Your task to perform on an android device: Open network settings Image 0: 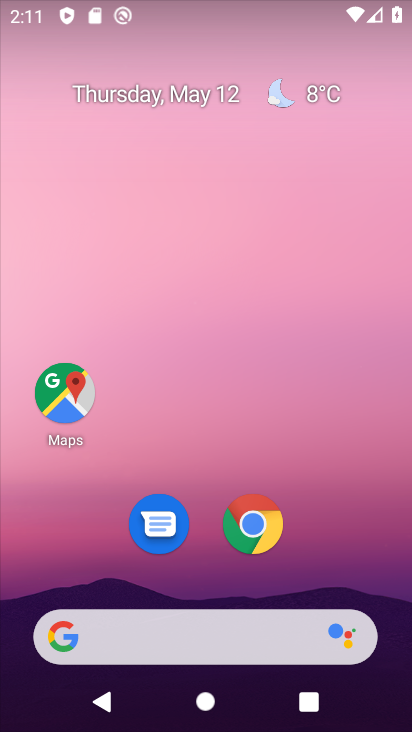
Step 0: drag from (296, 462) to (278, 62)
Your task to perform on an android device: Open network settings Image 1: 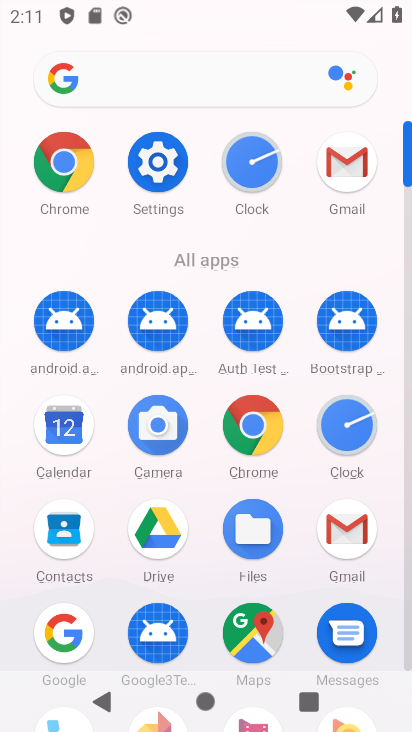
Step 1: click (161, 169)
Your task to perform on an android device: Open network settings Image 2: 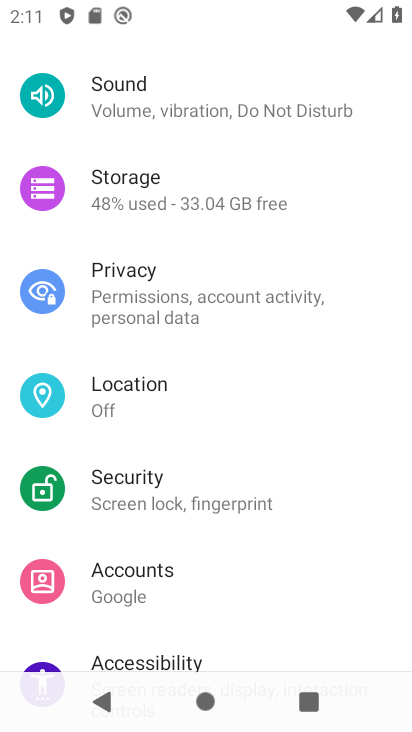
Step 2: drag from (236, 165) to (228, 576)
Your task to perform on an android device: Open network settings Image 3: 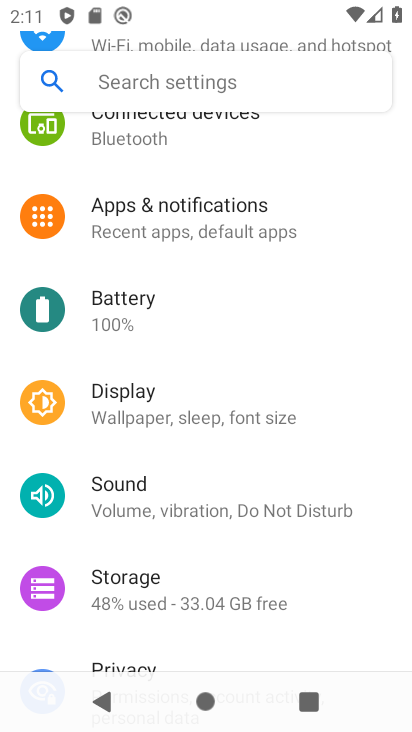
Step 3: drag from (201, 334) to (213, 585)
Your task to perform on an android device: Open network settings Image 4: 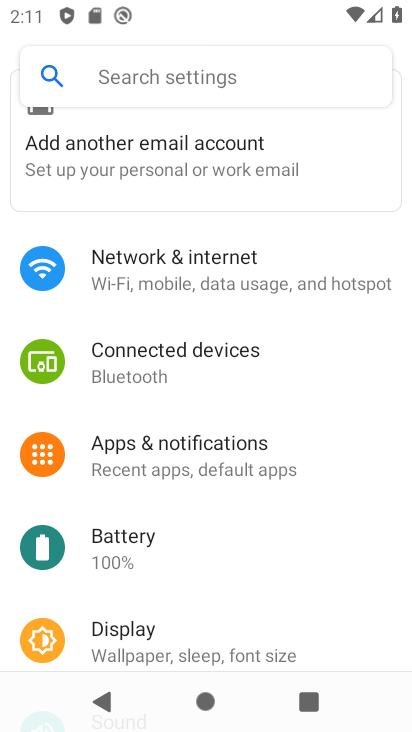
Step 4: click (211, 265)
Your task to perform on an android device: Open network settings Image 5: 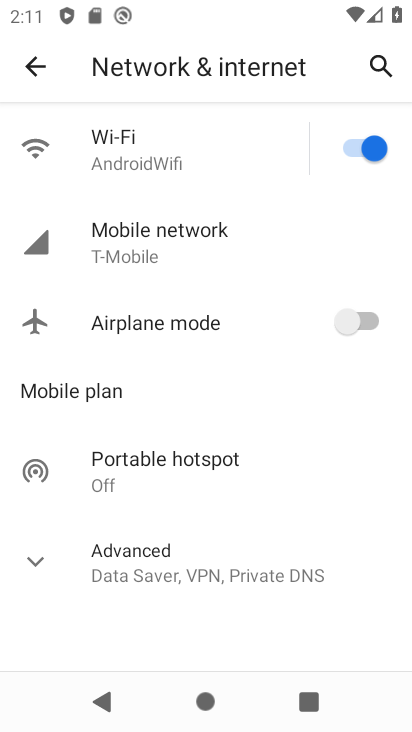
Step 5: task complete